Your task to perform on an android device: Open the web browser Image 0: 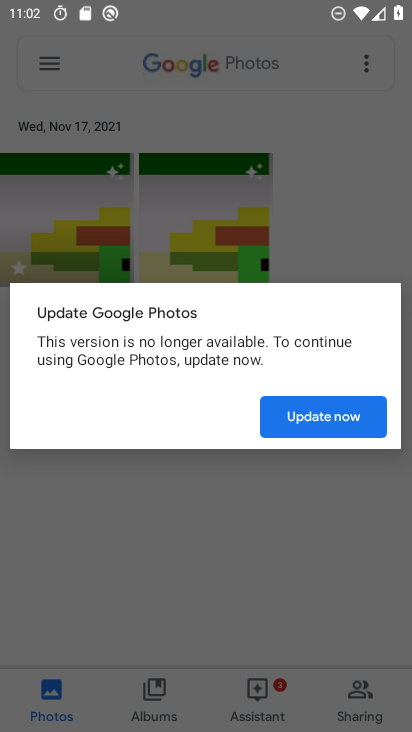
Step 0: press home button
Your task to perform on an android device: Open the web browser Image 1: 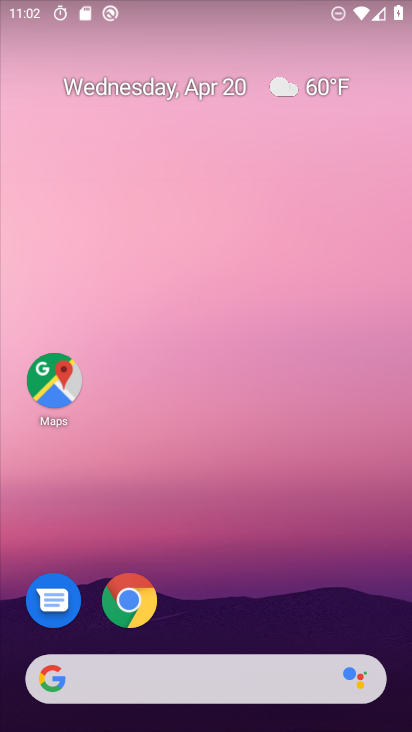
Step 1: click (250, 692)
Your task to perform on an android device: Open the web browser Image 2: 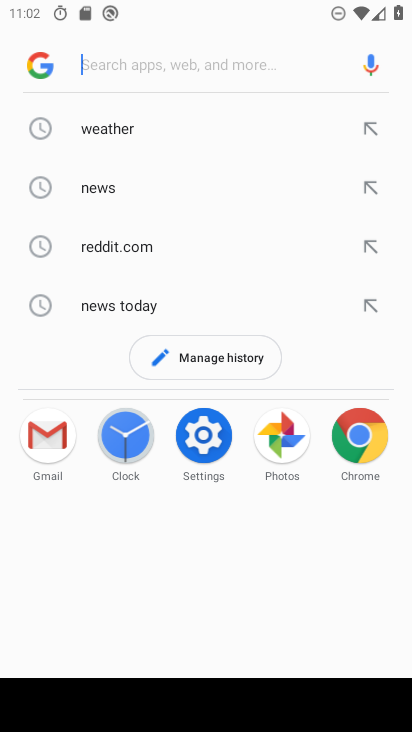
Step 2: task complete